Your task to perform on an android device: Search for "lg ultragear" on walmart.com, select the first entry, and add it to the cart. Image 0: 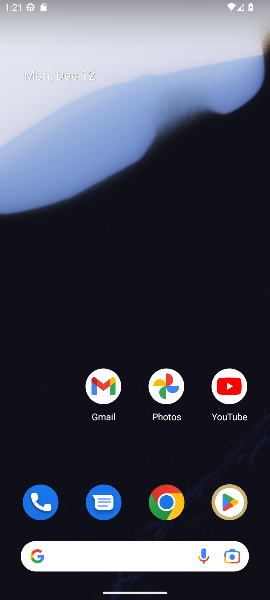
Step 0: click (172, 519)
Your task to perform on an android device: Search for "lg ultragear" on walmart.com, select the first entry, and add it to the cart. Image 1: 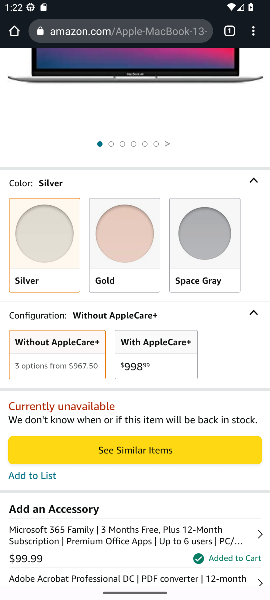
Step 1: drag from (153, 496) to (155, 281)
Your task to perform on an android device: Search for "lg ultragear" on walmart.com, select the first entry, and add it to the cart. Image 2: 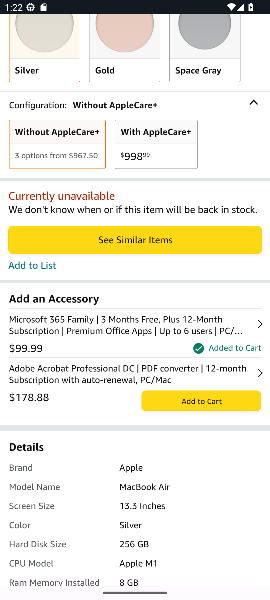
Step 2: click (197, 406)
Your task to perform on an android device: Search for "lg ultragear" on walmart.com, select the first entry, and add it to the cart. Image 3: 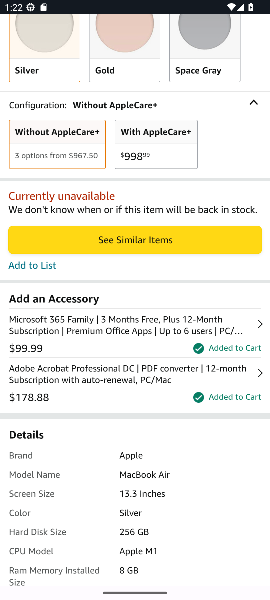
Step 3: task complete